Your task to perform on an android device: Open Google Maps Image 0: 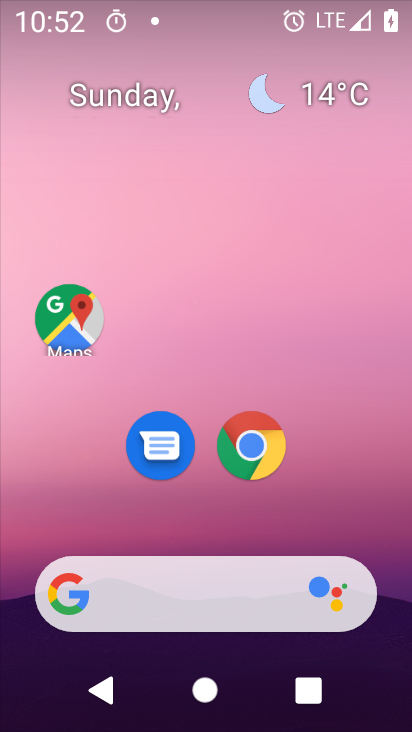
Step 0: drag from (206, 505) to (253, 184)
Your task to perform on an android device: Open Google Maps Image 1: 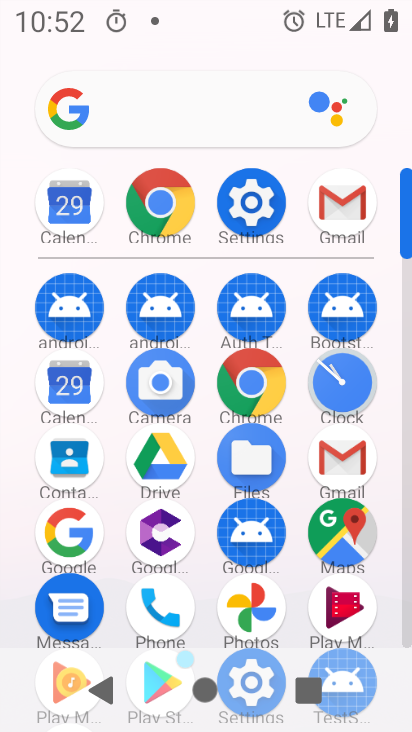
Step 1: click (342, 546)
Your task to perform on an android device: Open Google Maps Image 2: 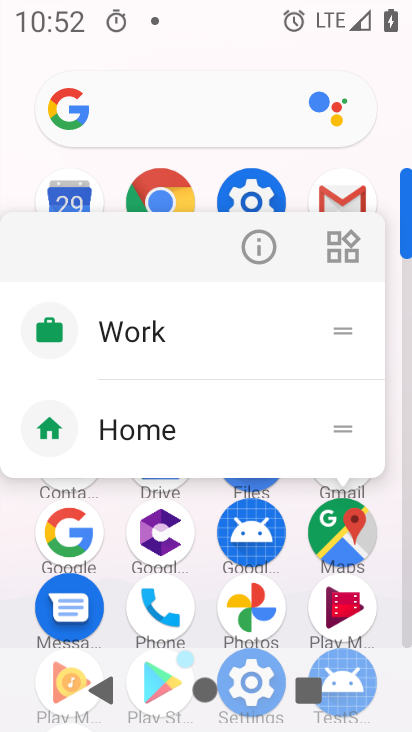
Step 2: click (256, 241)
Your task to perform on an android device: Open Google Maps Image 3: 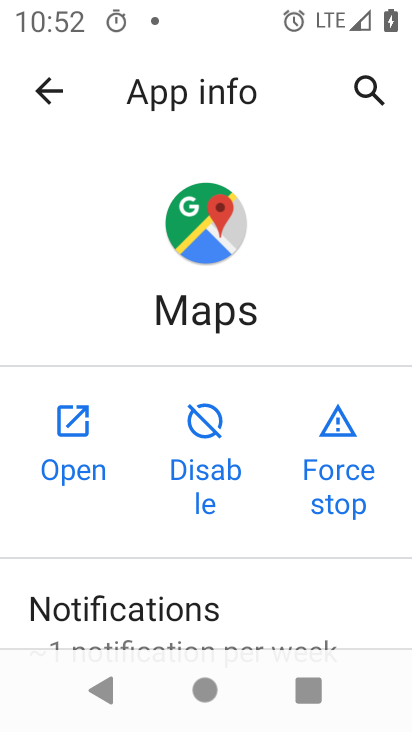
Step 3: click (64, 424)
Your task to perform on an android device: Open Google Maps Image 4: 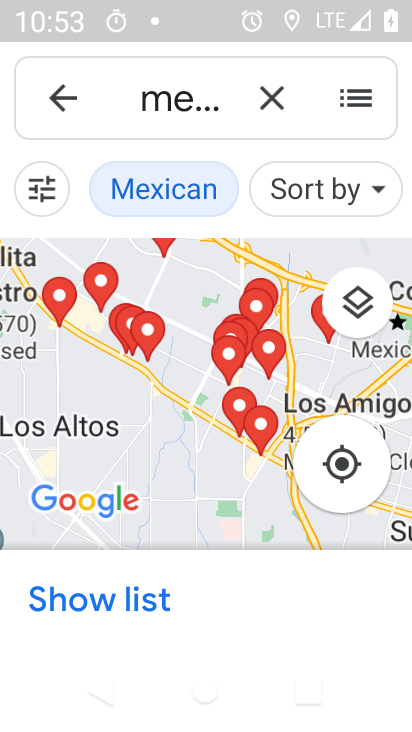
Step 4: task complete